Your task to perform on an android device: change notifications settings Image 0: 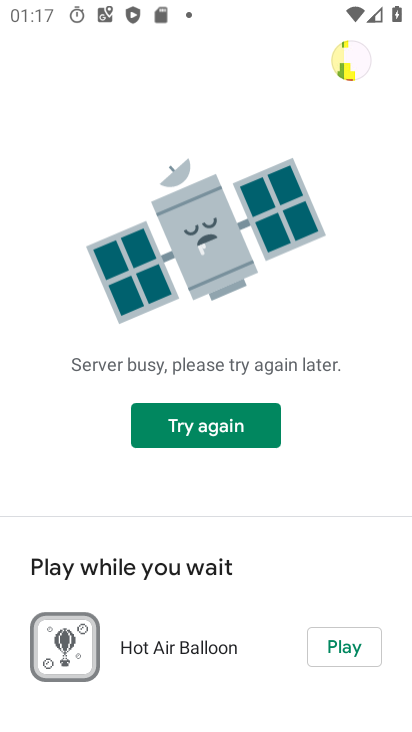
Step 0: press home button
Your task to perform on an android device: change notifications settings Image 1: 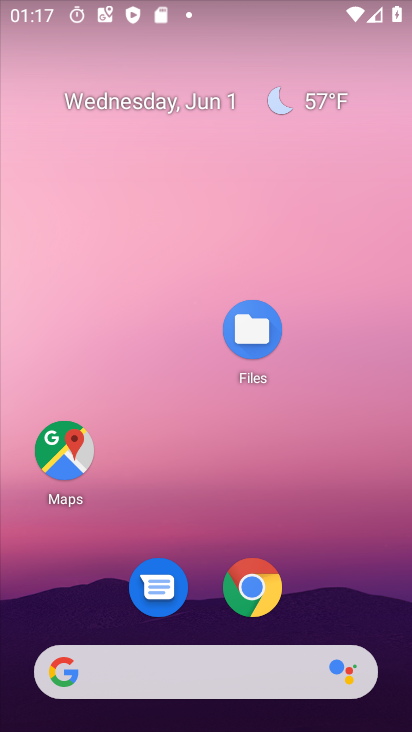
Step 1: drag from (382, 542) to (348, 113)
Your task to perform on an android device: change notifications settings Image 2: 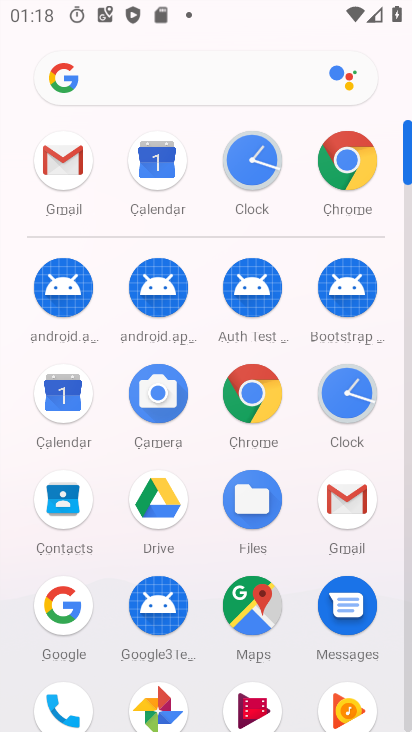
Step 2: click (409, 650)
Your task to perform on an android device: change notifications settings Image 3: 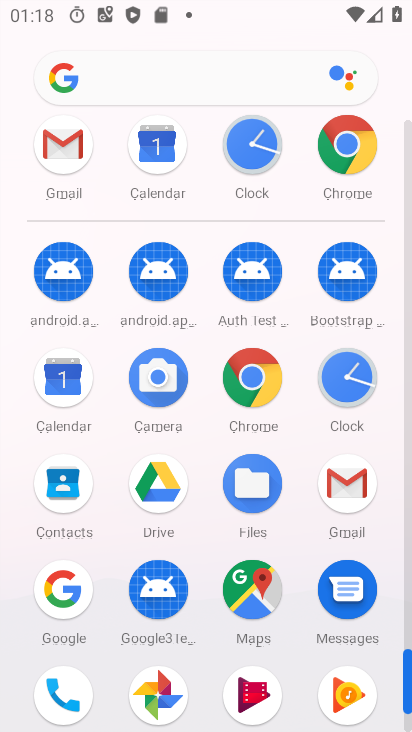
Step 3: click (409, 650)
Your task to perform on an android device: change notifications settings Image 4: 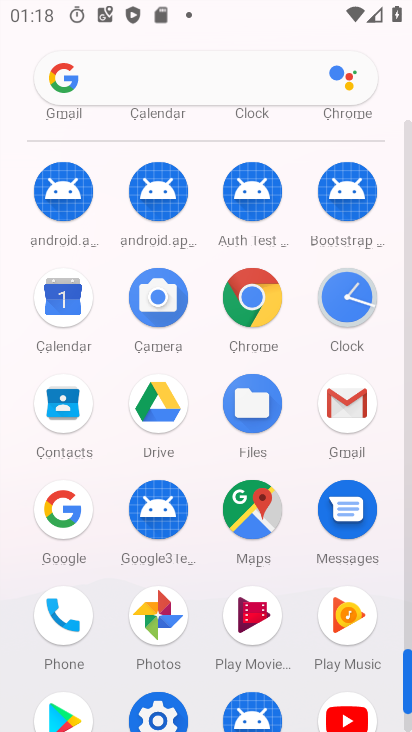
Step 4: click (409, 650)
Your task to perform on an android device: change notifications settings Image 5: 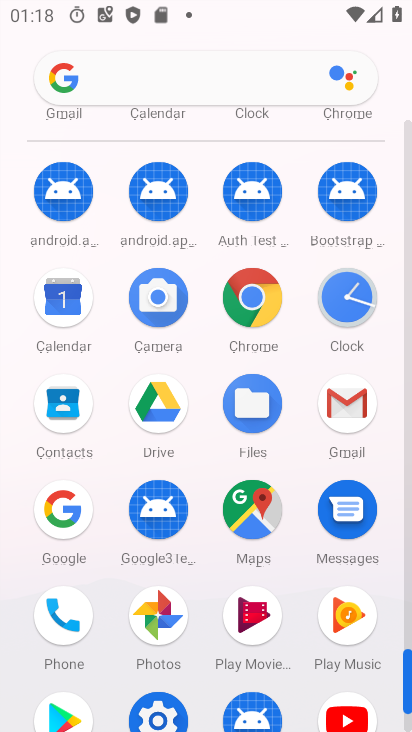
Step 5: click (409, 650)
Your task to perform on an android device: change notifications settings Image 6: 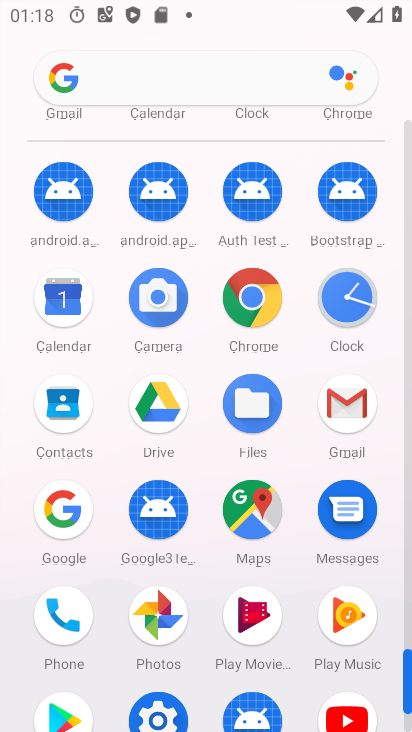
Step 6: click (167, 704)
Your task to perform on an android device: change notifications settings Image 7: 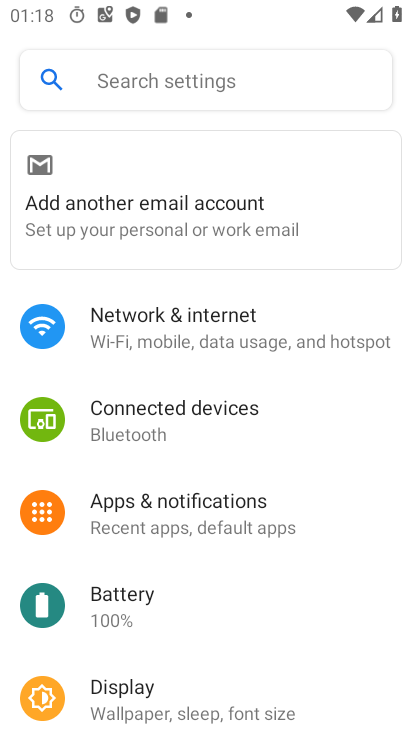
Step 7: click (196, 499)
Your task to perform on an android device: change notifications settings Image 8: 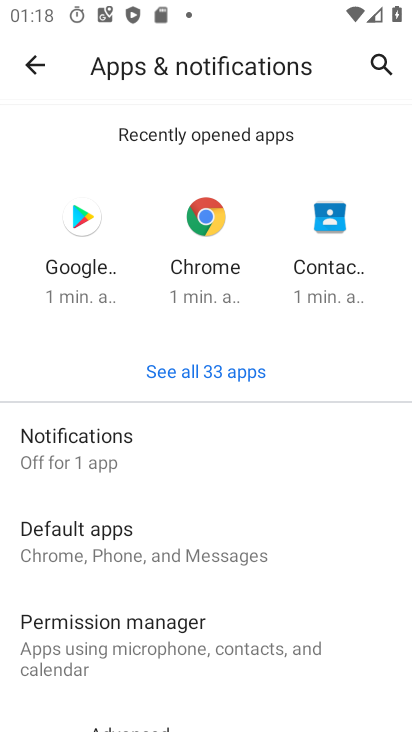
Step 8: click (114, 444)
Your task to perform on an android device: change notifications settings Image 9: 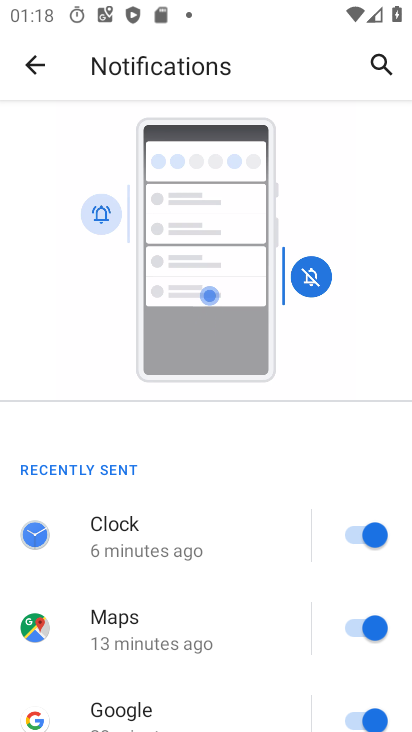
Step 9: drag from (234, 589) to (260, 3)
Your task to perform on an android device: change notifications settings Image 10: 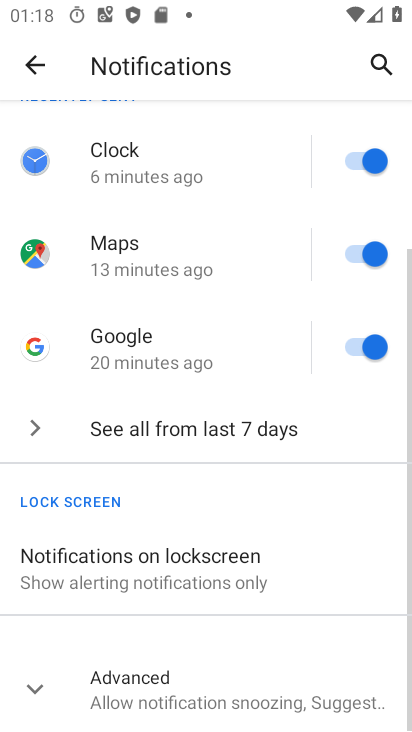
Step 10: click (261, 161)
Your task to perform on an android device: change notifications settings Image 11: 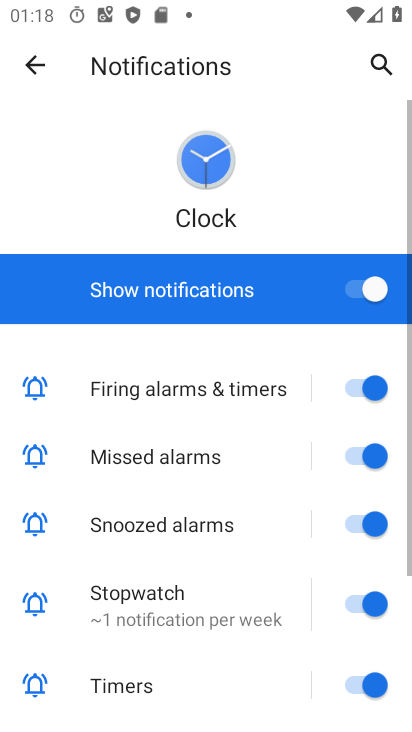
Step 11: click (46, 65)
Your task to perform on an android device: change notifications settings Image 12: 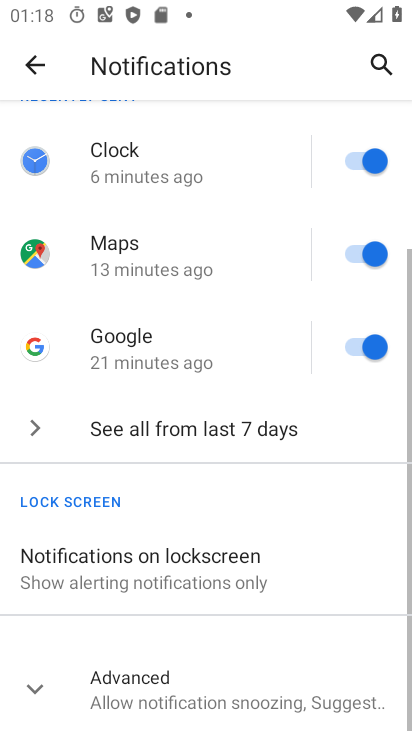
Step 12: click (376, 255)
Your task to perform on an android device: change notifications settings Image 13: 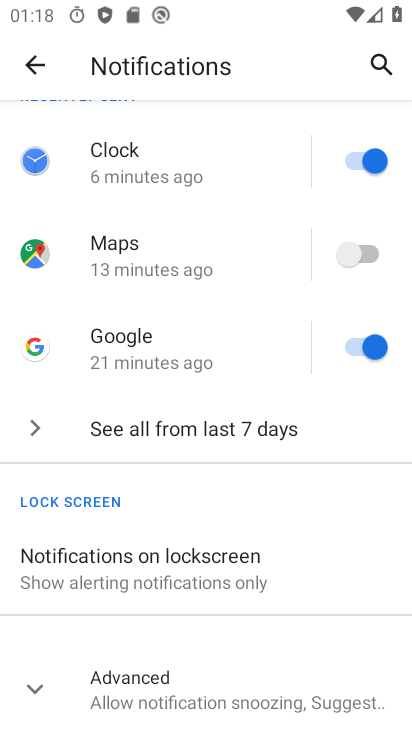
Step 13: click (229, 693)
Your task to perform on an android device: change notifications settings Image 14: 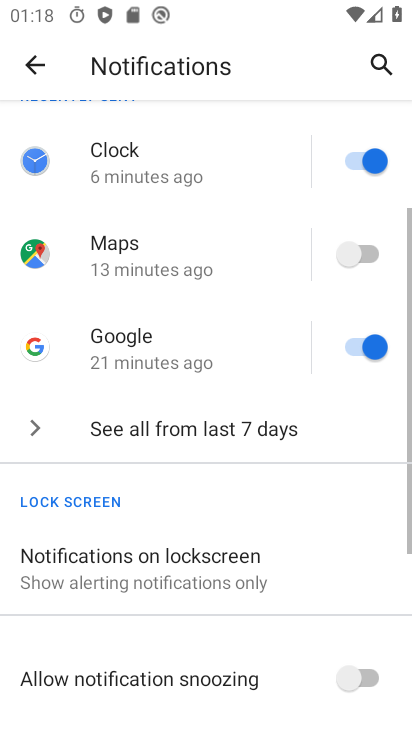
Step 14: drag from (229, 693) to (304, 343)
Your task to perform on an android device: change notifications settings Image 15: 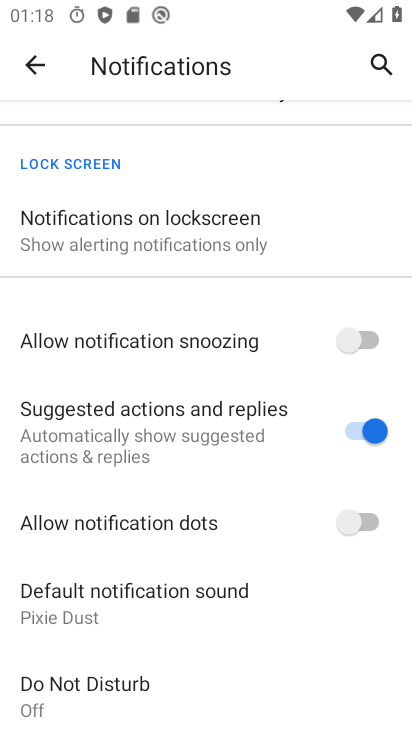
Step 15: click (293, 519)
Your task to perform on an android device: change notifications settings Image 16: 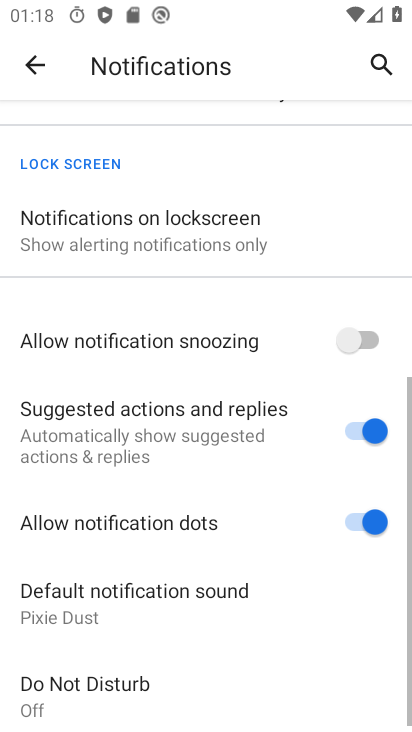
Step 16: click (309, 323)
Your task to perform on an android device: change notifications settings Image 17: 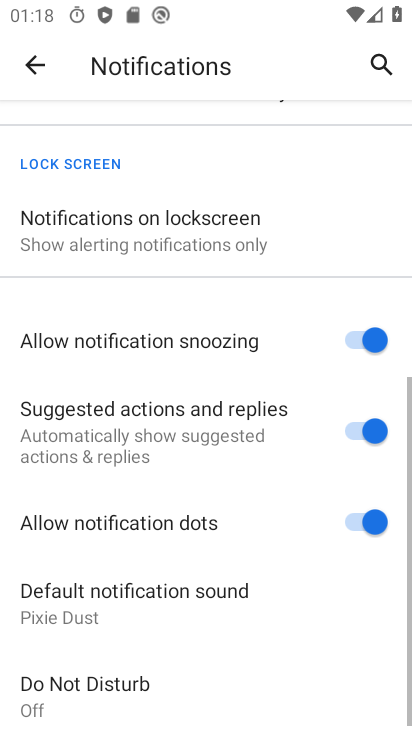
Step 17: click (317, 409)
Your task to perform on an android device: change notifications settings Image 18: 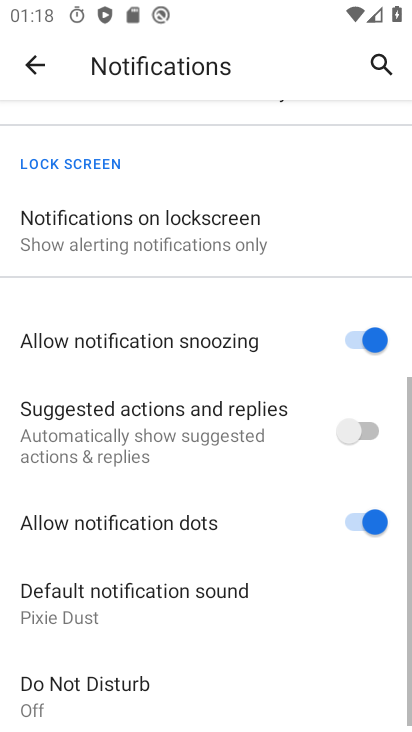
Step 18: task complete